Your task to perform on an android device: Show me the alarms in the clock app Image 0: 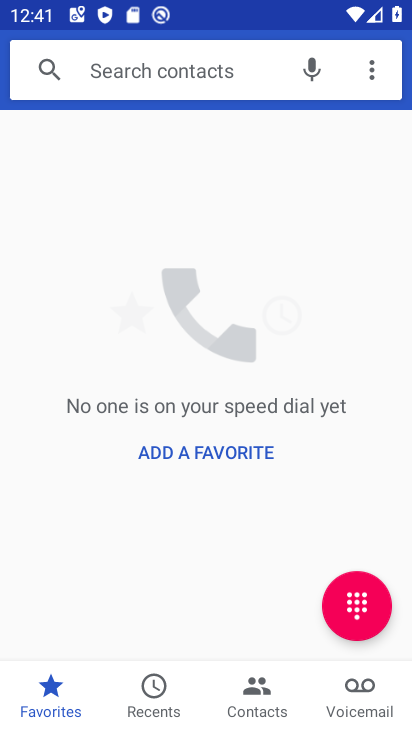
Step 0: press home button
Your task to perform on an android device: Show me the alarms in the clock app Image 1: 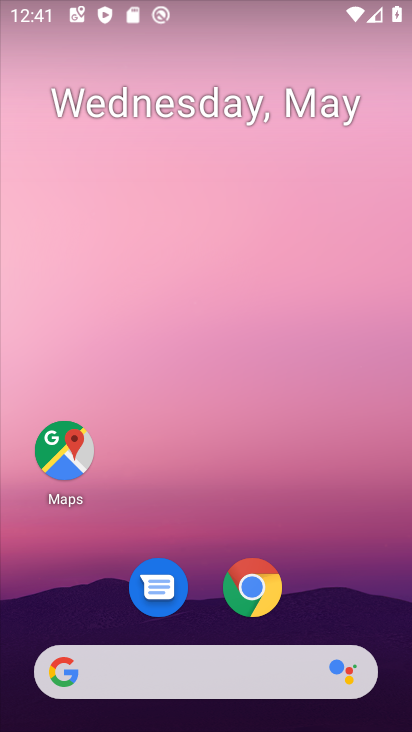
Step 1: drag from (345, 601) to (353, 209)
Your task to perform on an android device: Show me the alarms in the clock app Image 2: 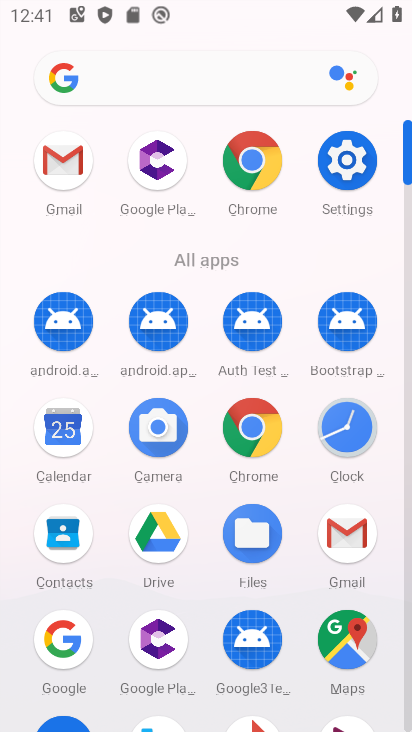
Step 2: click (359, 437)
Your task to perform on an android device: Show me the alarms in the clock app Image 3: 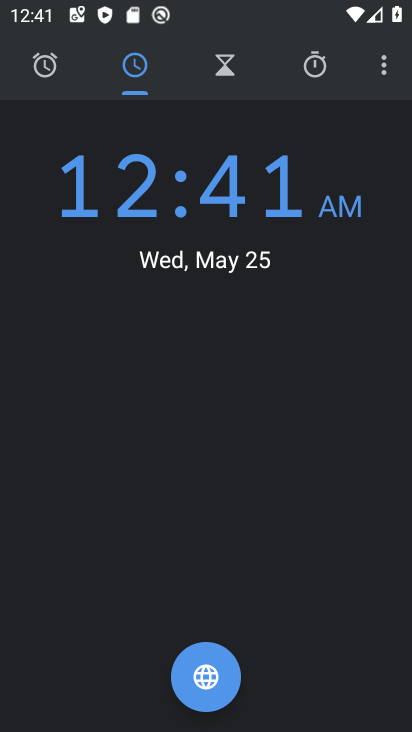
Step 3: click (47, 66)
Your task to perform on an android device: Show me the alarms in the clock app Image 4: 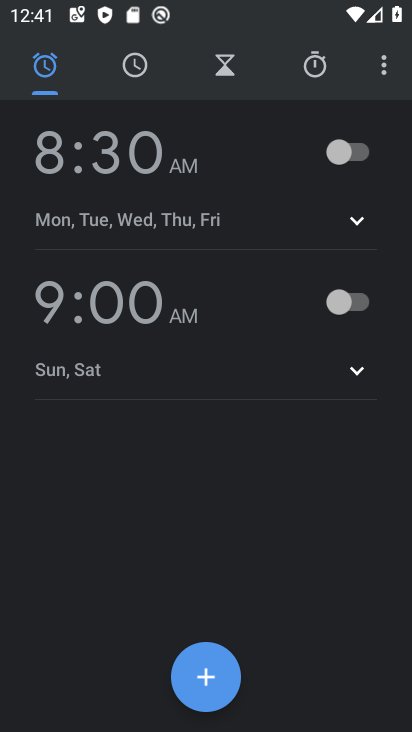
Step 4: task complete